Your task to perform on an android device: Go to sound settings Image 0: 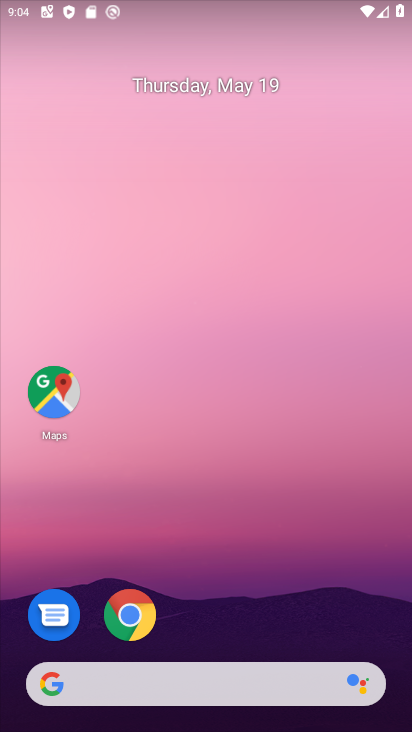
Step 0: press home button
Your task to perform on an android device: Go to sound settings Image 1: 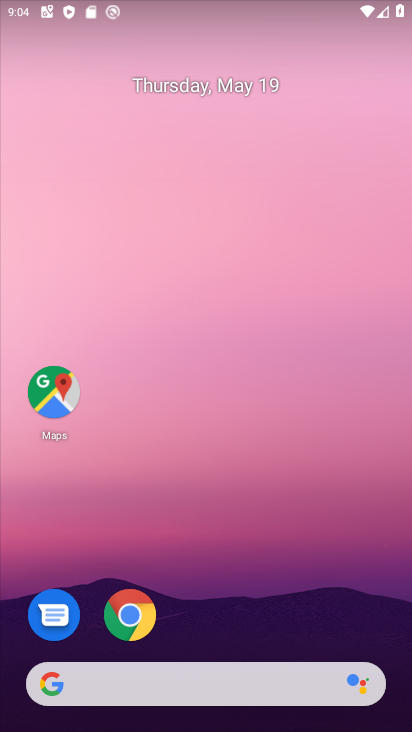
Step 1: drag from (285, 618) to (304, 93)
Your task to perform on an android device: Go to sound settings Image 2: 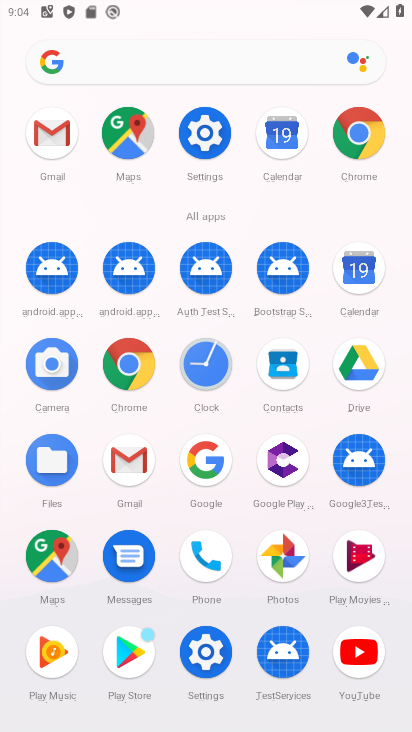
Step 2: click (218, 114)
Your task to perform on an android device: Go to sound settings Image 3: 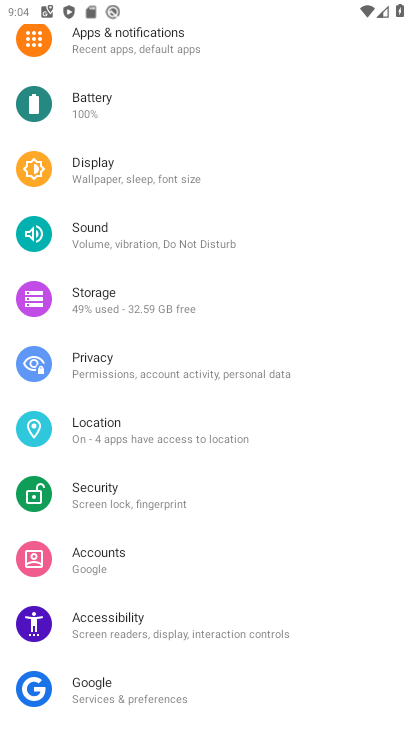
Step 3: click (94, 237)
Your task to perform on an android device: Go to sound settings Image 4: 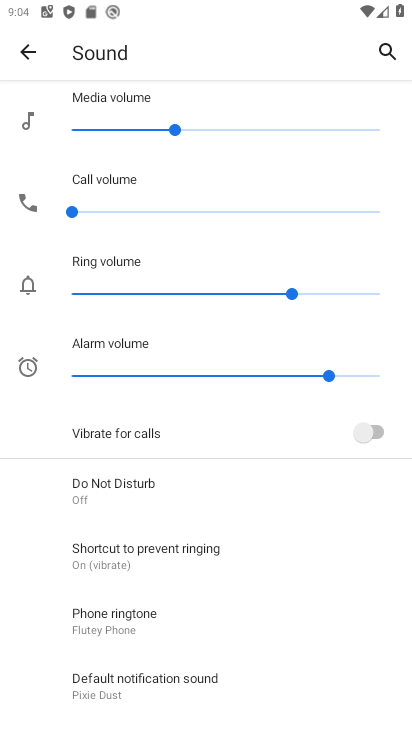
Step 4: task complete